Your task to perform on an android device: toggle location history Image 0: 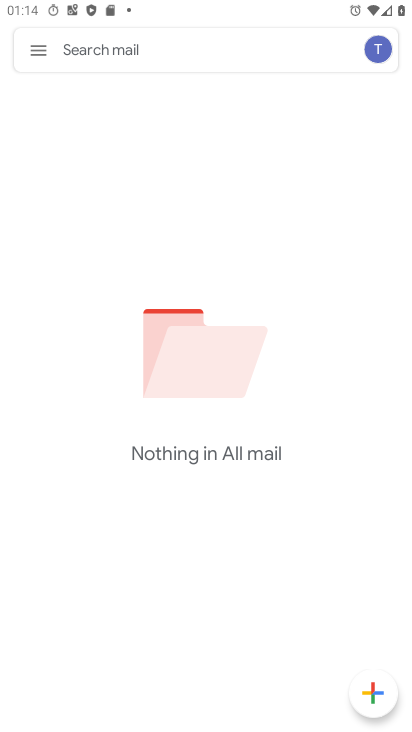
Step 0: press home button
Your task to perform on an android device: toggle location history Image 1: 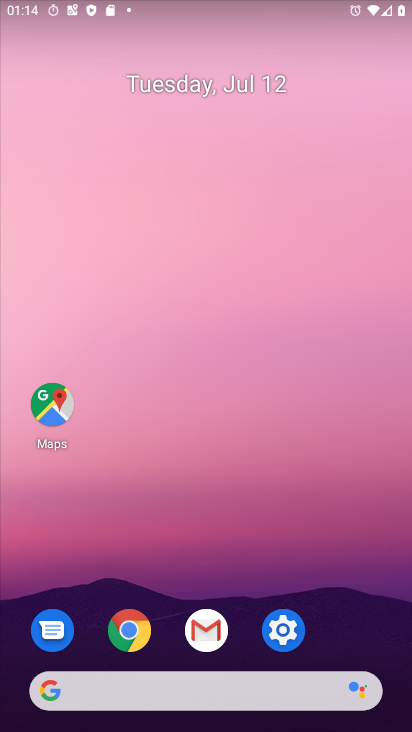
Step 1: click (264, 620)
Your task to perform on an android device: toggle location history Image 2: 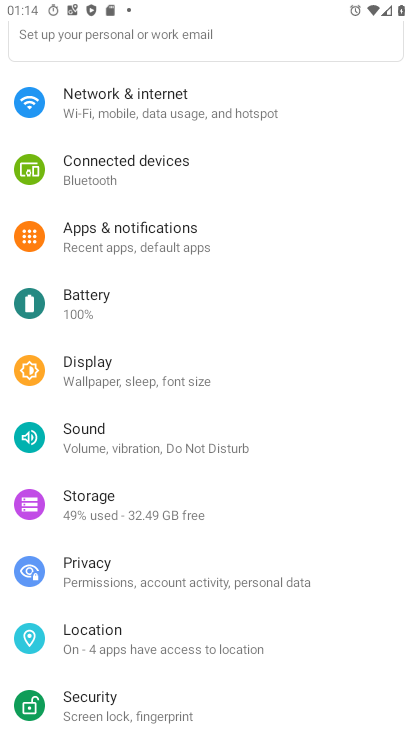
Step 2: click (109, 634)
Your task to perform on an android device: toggle location history Image 3: 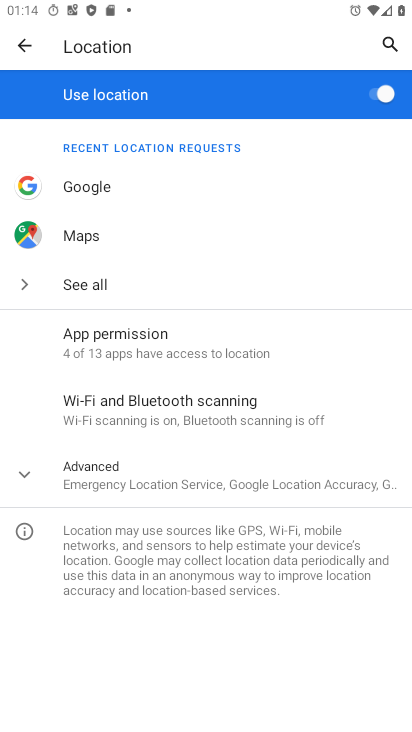
Step 3: click (67, 471)
Your task to perform on an android device: toggle location history Image 4: 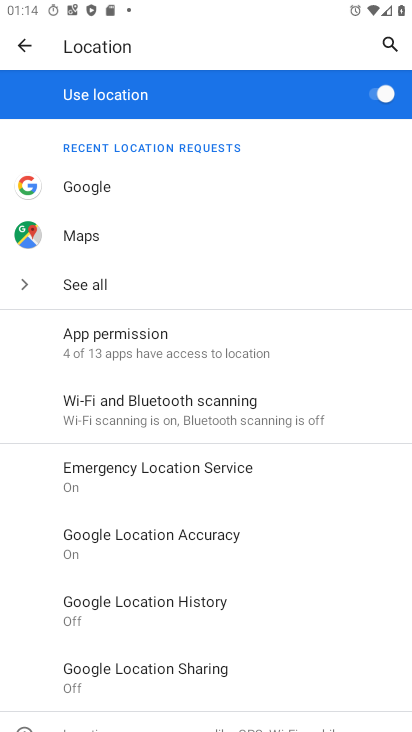
Step 4: click (116, 610)
Your task to perform on an android device: toggle location history Image 5: 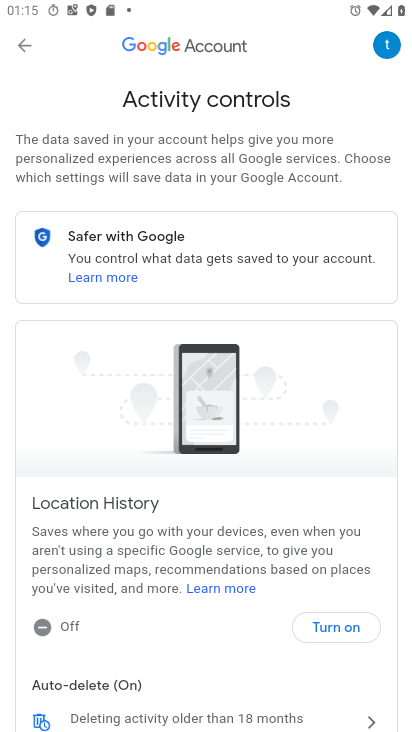
Step 5: task complete